Your task to perform on an android device: Go to Amazon Image 0: 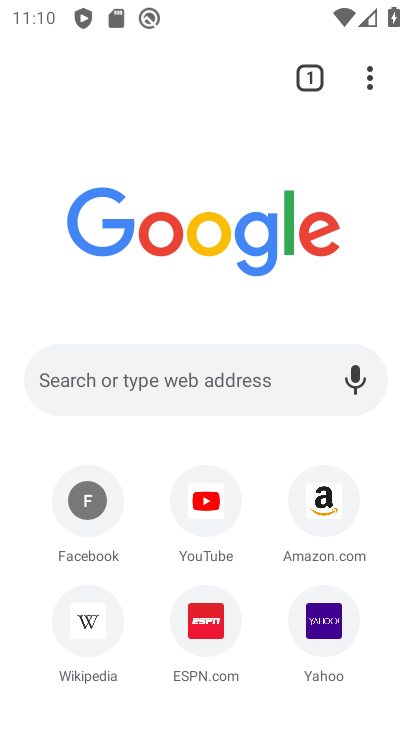
Step 0: press home button
Your task to perform on an android device: Go to Amazon Image 1: 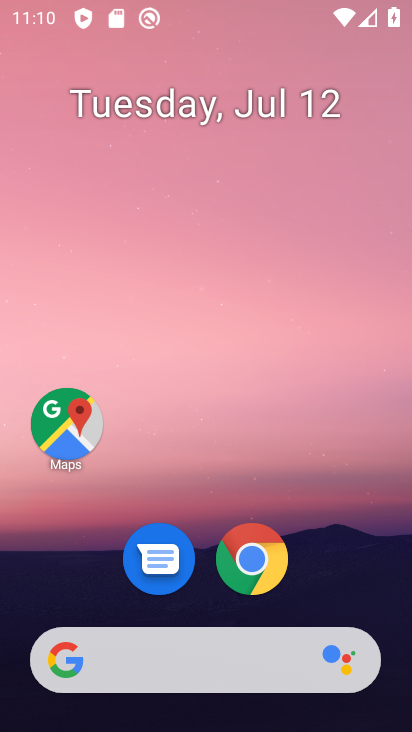
Step 1: drag from (213, 634) to (162, 312)
Your task to perform on an android device: Go to Amazon Image 2: 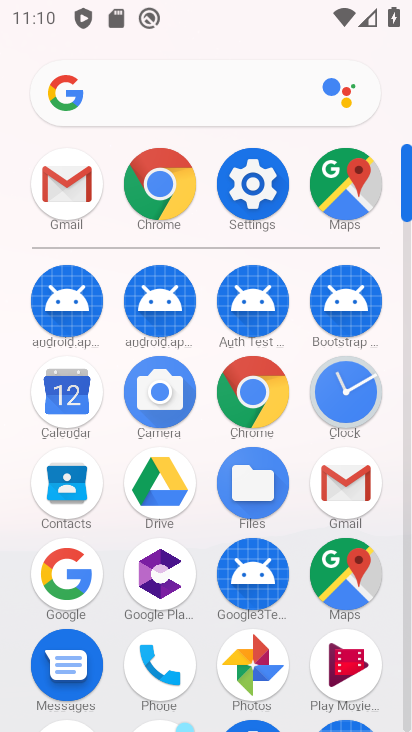
Step 2: click (170, 202)
Your task to perform on an android device: Go to Amazon Image 3: 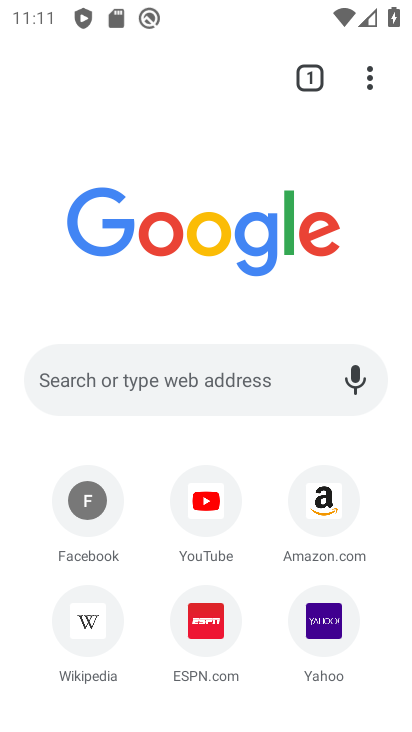
Step 3: click (318, 527)
Your task to perform on an android device: Go to Amazon Image 4: 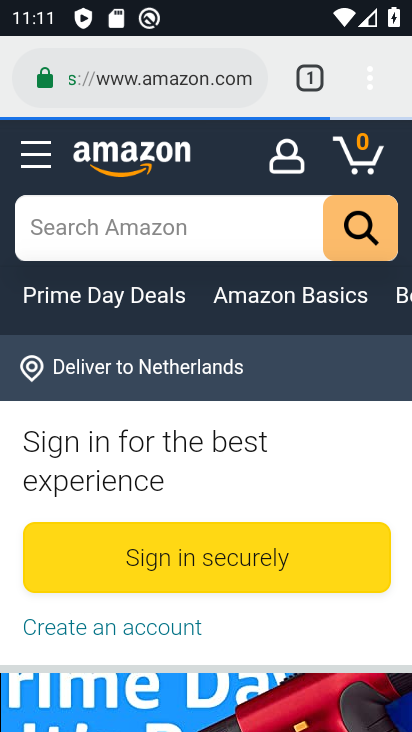
Step 4: task complete